Your task to perform on an android device: all mails in gmail Image 0: 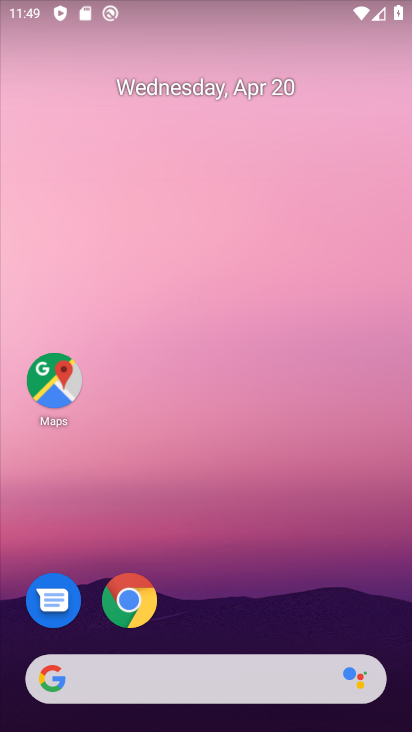
Step 0: drag from (335, 564) to (410, 98)
Your task to perform on an android device: all mails in gmail Image 1: 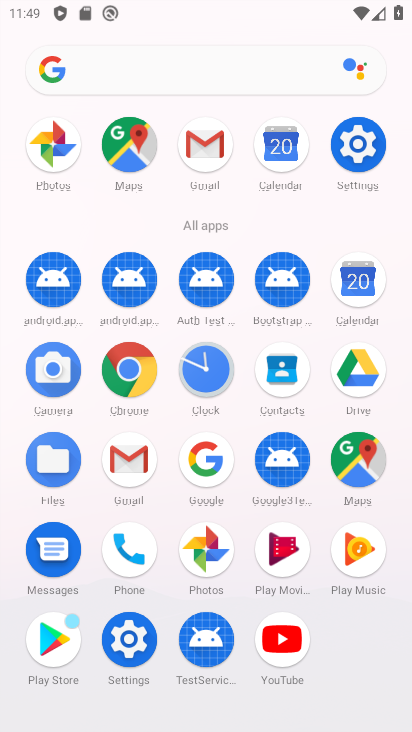
Step 1: click (217, 144)
Your task to perform on an android device: all mails in gmail Image 2: 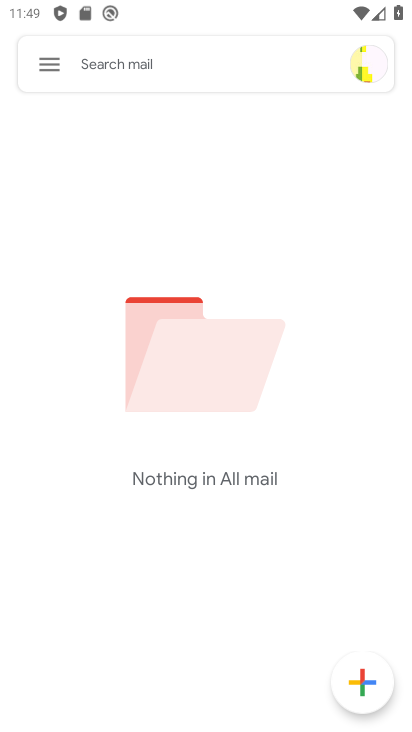
Step 2: task complete